Your task to perform on an android device: Clear the shopping cart on newegg. Search for "usb-a to usb-b" on newegg, select the first entry, and add it to the cart. Image 0: 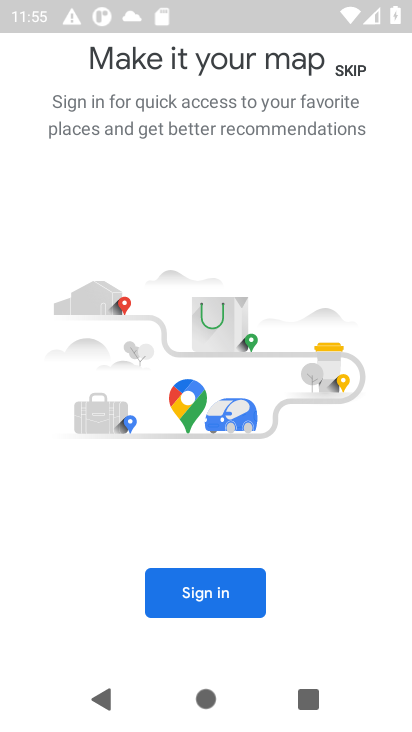
Step 0: press home button
Your task to perform on an android device: Clear the shopping cart on newegg. Search for "usb-a to usb-b" on newegg, select the first entry, and add it to the cart. Image 1: 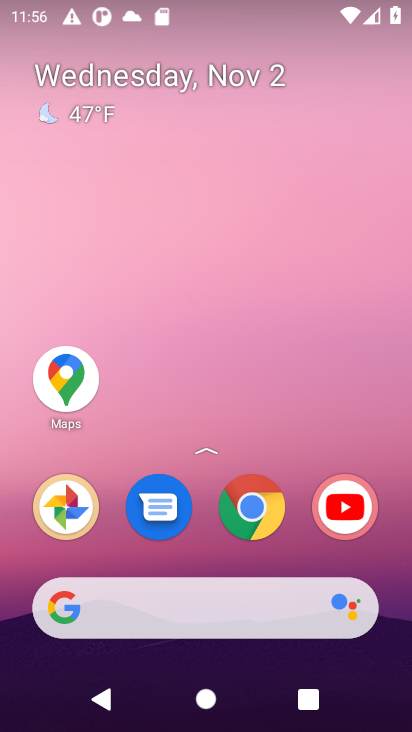
Step 1: click (255, 612)
Your task to perform on an android device: Clear the shopping cart on newegg. Search for "usb-a to usb-b" on newegg, select the first entry, and add it to the cart. Image 2: 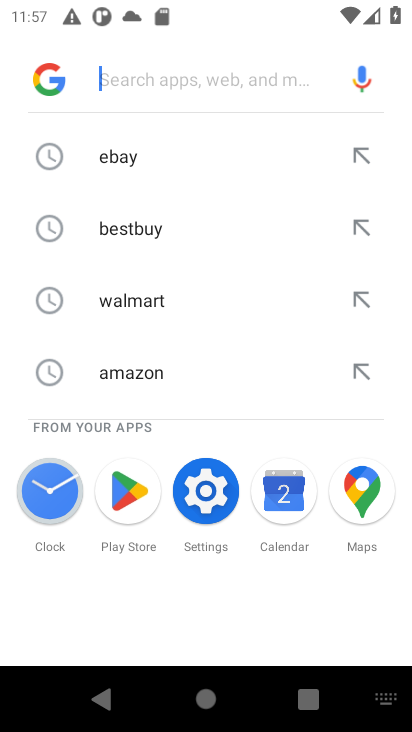
Step 2: type "newegg"
Your task to perform on an android device: Clear the shopping cart on newegg. Search for "usb-a to usb-b" on newegg, select the first entry, and add it to the cart. Image 3: 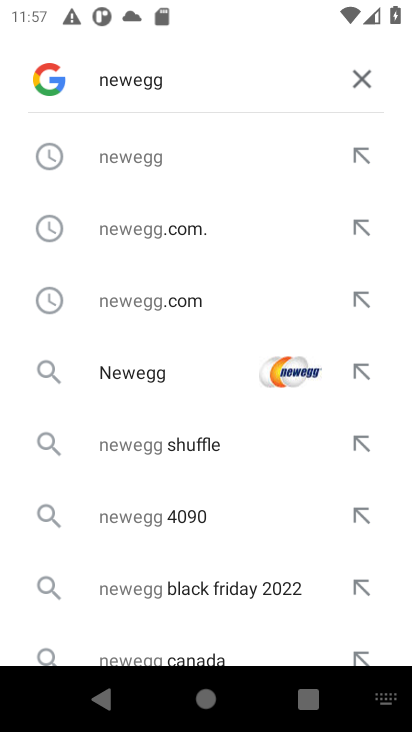
Step 3: click (188, 168)
Your task to perform on an android device: Clear the shopping cart on newegg. Search for "usb-a to usb-b" on newegg, select the first entry, and add it to the cart. Image 4: 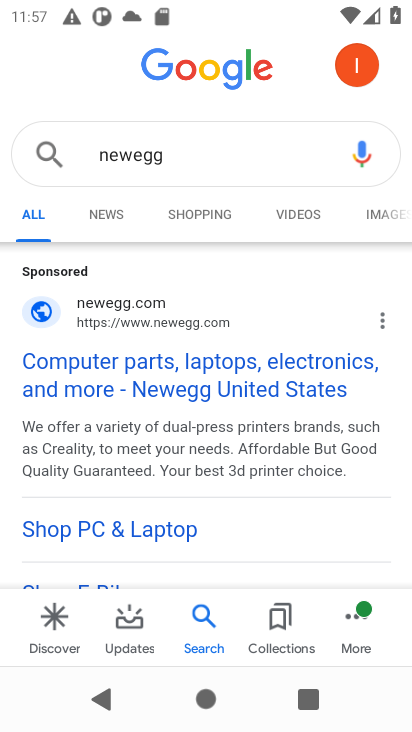
Step 4: click (113, 389)
Your task to perform on an android device: Clear the shopping cart on newegg. Search for "usb-a to usb-b" on newegg, select the first entry, and add it to the cart. Image 5: 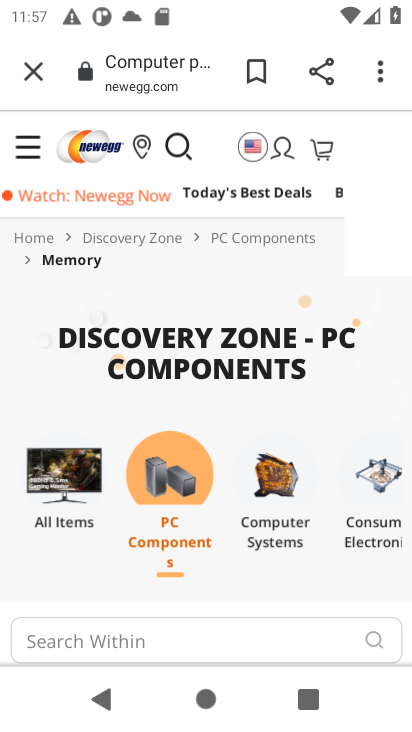
Step 5: click (190, 155)
Your task to perform on an android device: Clear the shopping cart on newegg. Search for "usb-a to usb-b" on newegg, select the first entry, and add it to the cart. Image 6: 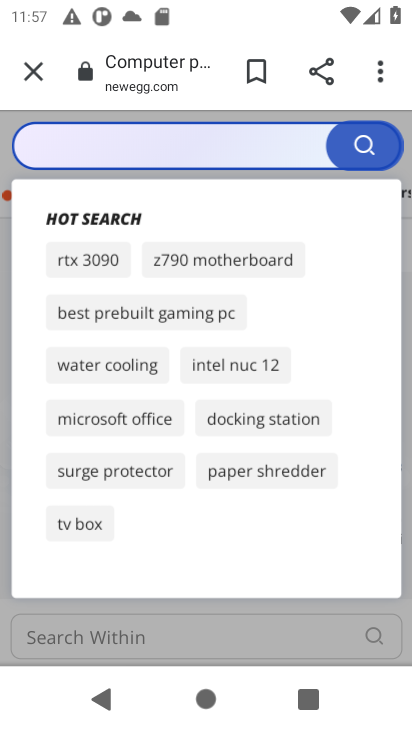
Step 6: click (190, 152)
Your task to perform on an android device: Clear the shopping cart on newegg. Search for "usb-a to usb-b" on newegg, select the first entry, and add it to the cart. Image 7: 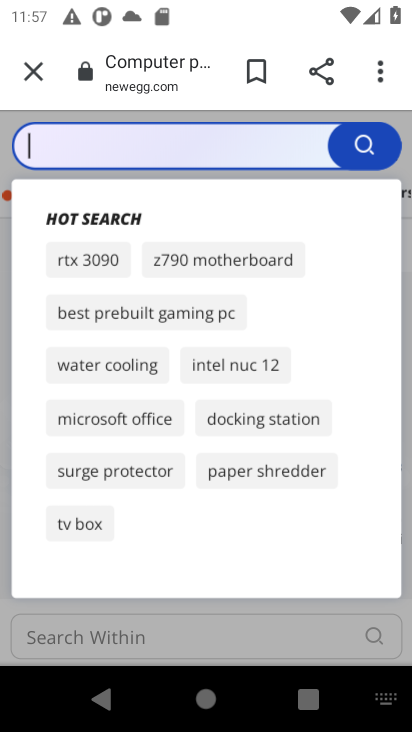
Step 7: type "usb-a to usb-b"
Your task to perform on an android device: Clear the shopping cart on newegg. Search for "usb-a to usb-b" on newegg, select the first entry, and add it to the cart. Image 8: 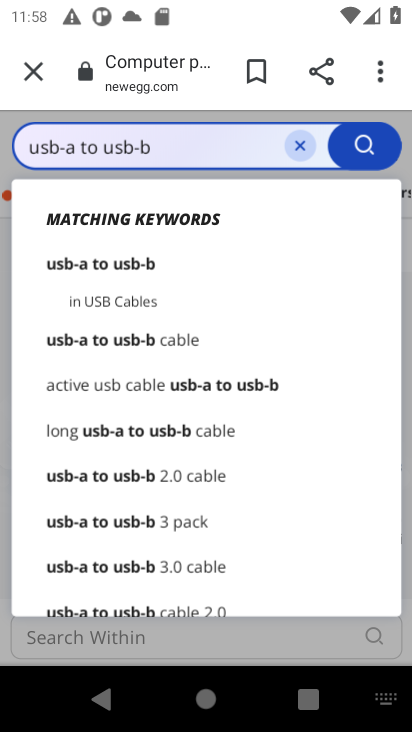
Step 8: click (198, 267)
Your task to perform on an android device: Clear the shopping cart on newegg. Search for "usb-a to usb-b" on newegg, select the first entry, and add it to the cart. Image 9: 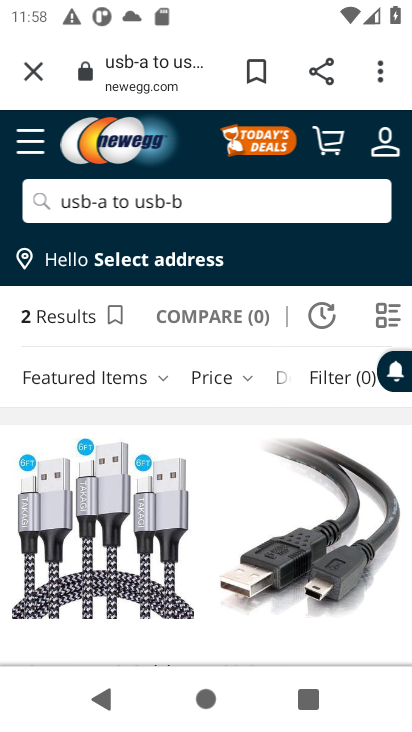
Step 9: click (141, 511)
Your task to perform on an android device: Clear the shopping cart on newegg. Search for "usb-a to usb-b" on newegg, select the first entry, and add it to the cart. Image 10: 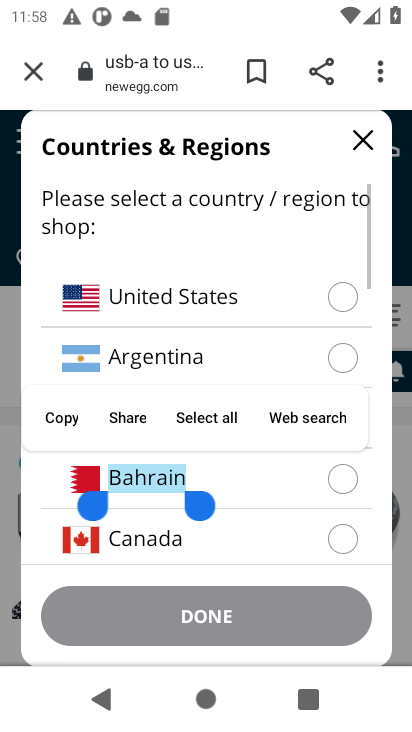
Step 10: click (270, 298)
Your task to perform on an android device: Clear the shopping cart on newegg. Search for "usb-a to usb-b" on newegg, select the first entry, and add it to the cart. Image 11: 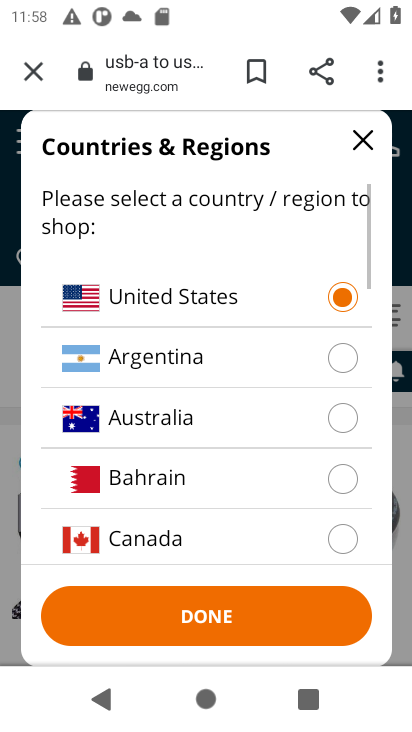
Step 11: click (273, 607)
Your task to perform on an android device: Clear the shopping cart on newegg. Search for "usb-a to usb-b" on newegg, select the first entry, and add it to the cart. Image 12: 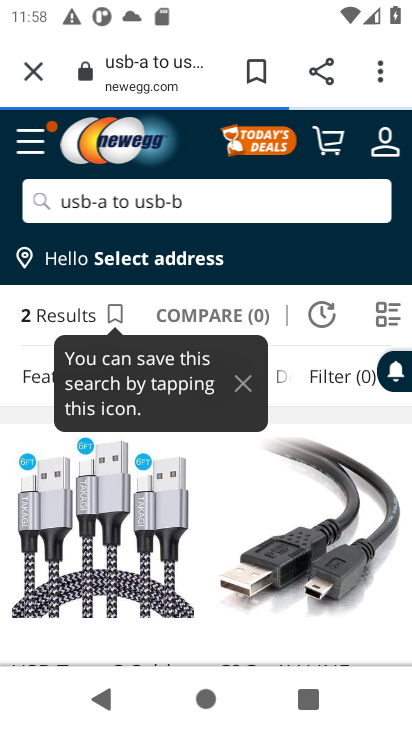
Step 12: click (177, 580)
Your task to perform on an android device: Clear the shopping cart on newegg. Search for "usb-a to usb-b" on newegg, select the first entry, and add it to the cart. Image 13: 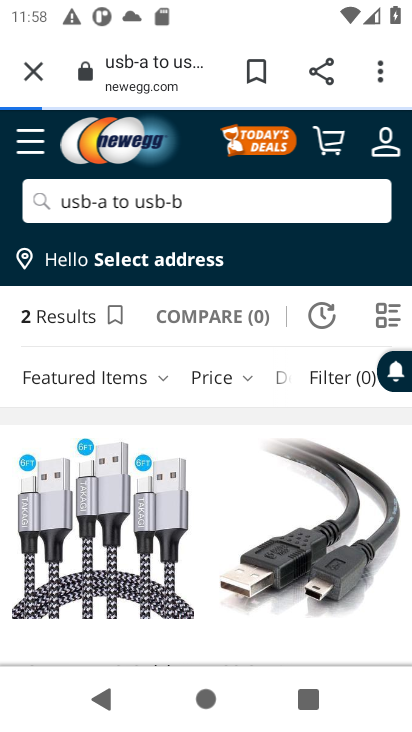
Step 13: click (177, 580)
Your task to perform on an android device: Clear the shopping cart on newegg. Search for "usb-a to usb-b" on newegg, select the first entry, and add it to the cart. Image 14: 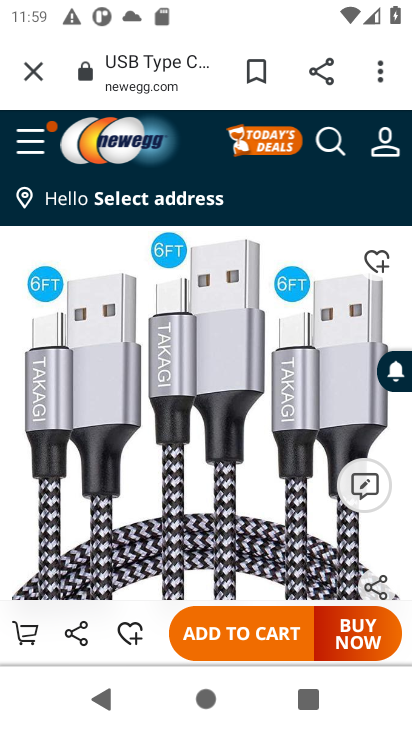
Step 14: click (221, 629)
Your task to perform on an android device: Clear the shopping cart on newegg. Search for "usb-a to usb-b" on newegg, select the first entry, and add it to the cart. Image 15: 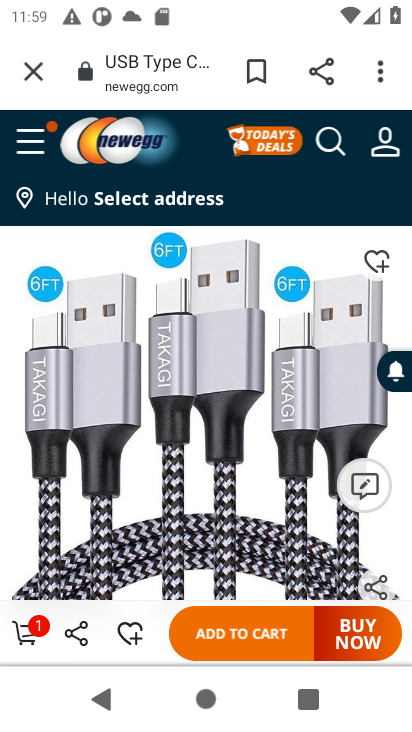
Step 15: task complete